Your task to perform on an android device: Look up the best selling books on Goodreads. Image 0: 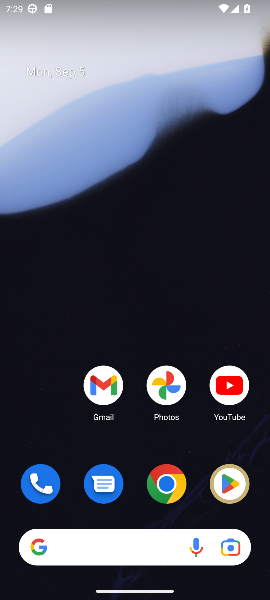
Step 0: click (128, 77)
Your task to perform on an android device: Look up the best selling books on Goodreads. Image 1: 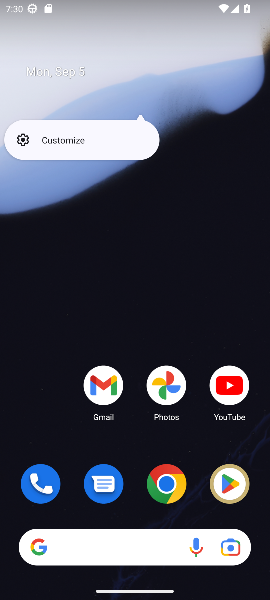
Step 1: click (145, 250)
Your task to perform on an android device: Look up the best selling books on Goodreads. Image 2: 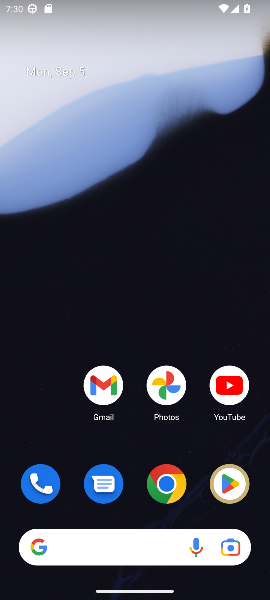
Step 2: drag from (163, 532) to (179, 107)
Your task to perform on an android device: Look up the best selling books on Goodreads. Image 3: 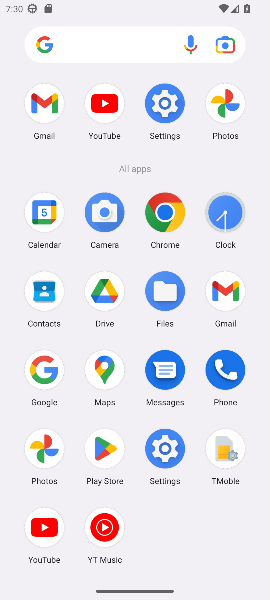
Step 3: click (176, 217)
Your task to perform on an android device: Look up the best selling books on Goodreads. Image 4: 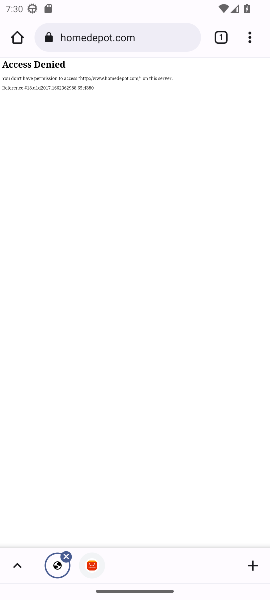
Step 4: click (106, 39)
Your task to perform on an android device: Look up the best selling books on Goodreads. Image 5: 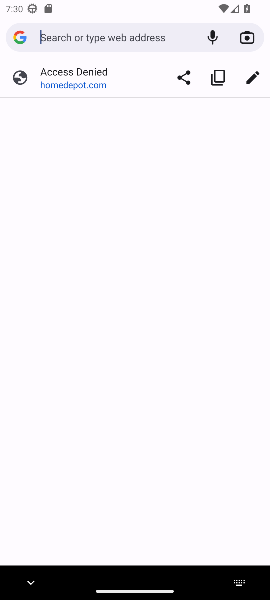
Step 5: type " best selling books"
Your task to perform on an android device: Look up the best selling books on Goodreads. Image 6: 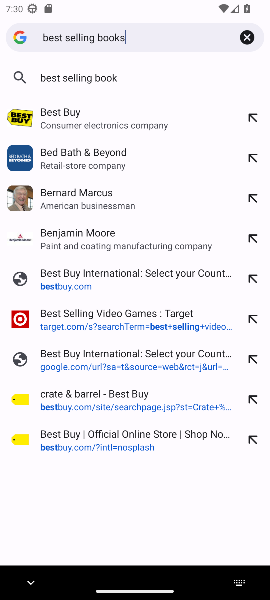
Step 6: press enter
Your task to perform on an android device: Look up the best selling books on Goodreads. Image 7: 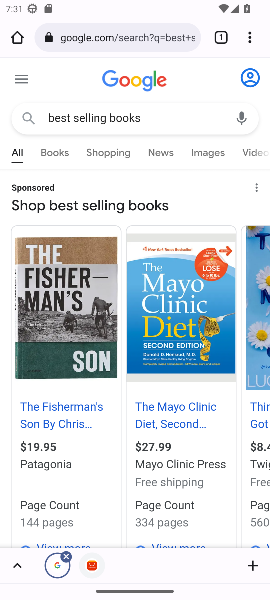
Step 7: drag from (122, 403) to (156, 199)
Your task to perform on an android device: Look up the best selling books on Goodreads. Image 8: 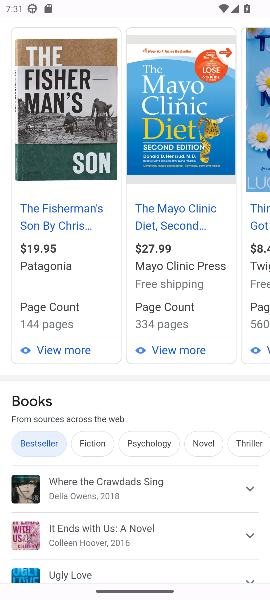
Step 8: click (208, 260)
Your task to perform on an android device: Look up the best selling books on Goodreads. Image 9: 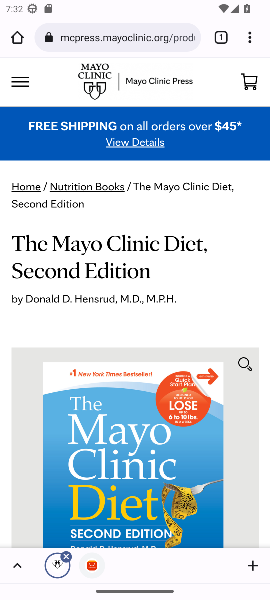
Step 9: click (193, 200)
Your task to perform on an android device: Look up the best selling books on Goodreads. Image 10: 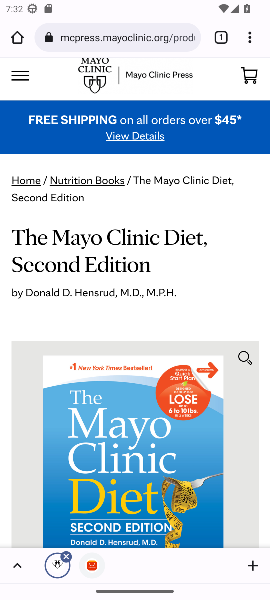
Step 10: click (170, 412)
Your task to perform on an android device: Look up the best selling books on Goodreads. Image 11: 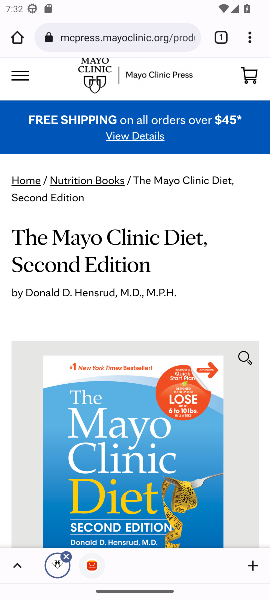
Step 11: task complete